Your task to perform on an android device: turn on javascript in the chrome app Image 0: 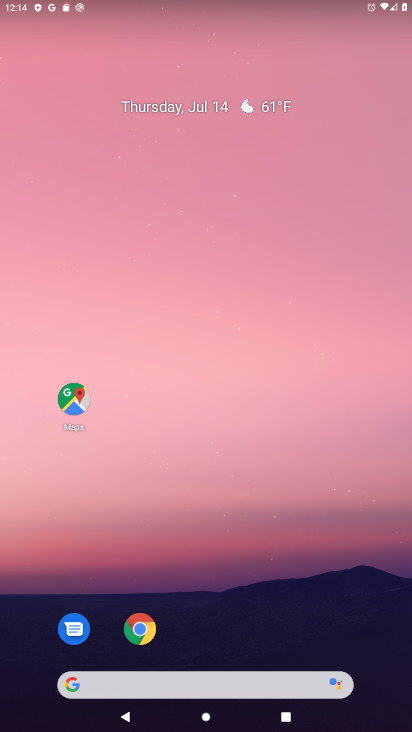
Step 0: click (140, 628)
Your task to perform on an android device: turn on javascript in the chrome app Image 1: 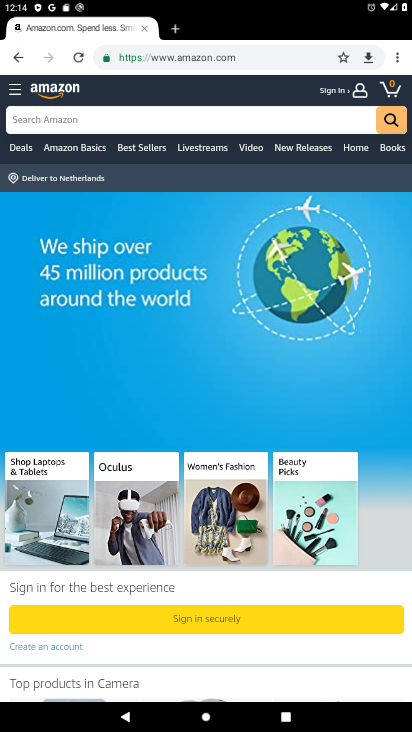
Step 1: click (398, 57)
Your task to perform on an android device: turn on javascript in the chrome app Image 2: 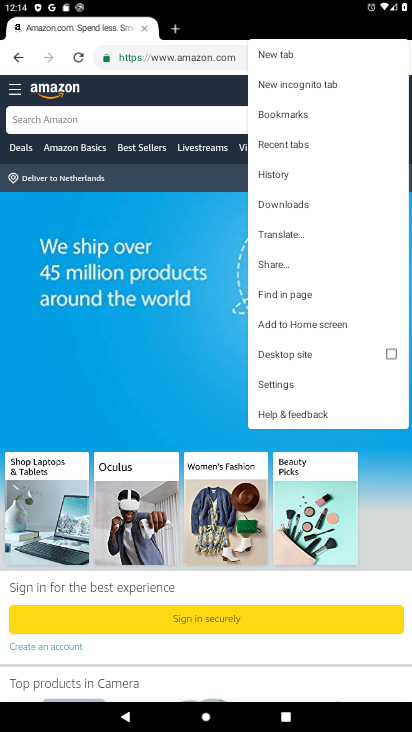
Step 2: click (276, 384)
Your task to perform on an android device: turn on javascript in the chrome app Image 3: 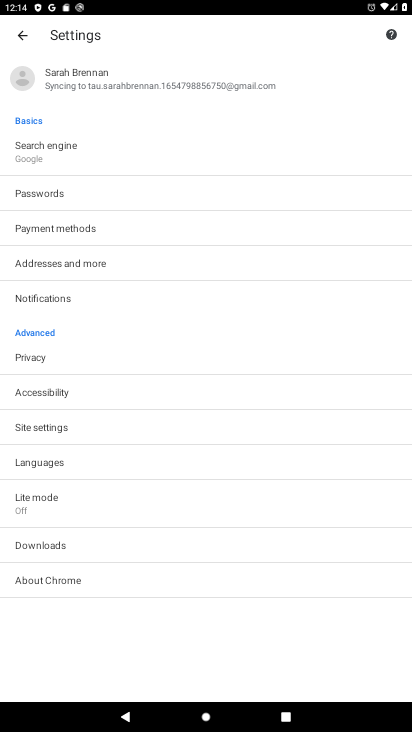
Step 3: click (54, 425)
Your task to perform on an android device: turn on javascript in the chrome app Image 4: 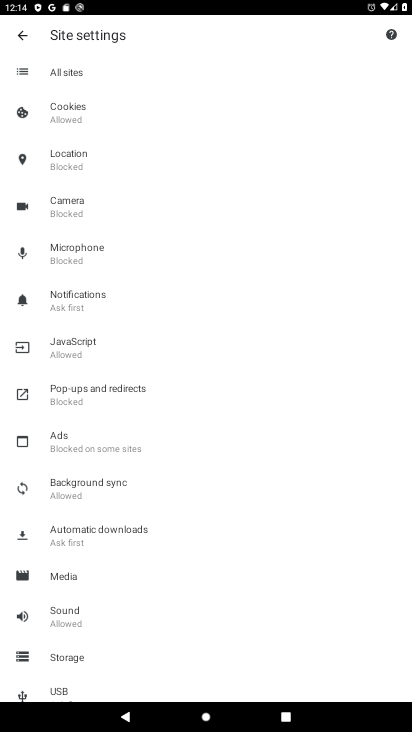
Step 4: click (72, 348)
Your task to perform on an android device: turn on javascript in the chrome app Image 5: 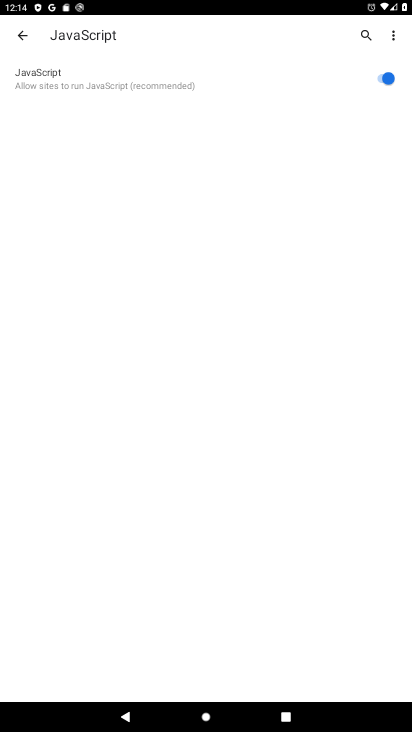
Step 5: task complete